Your task to perform on an android device: turn on javascript in the chrome app Image 0: 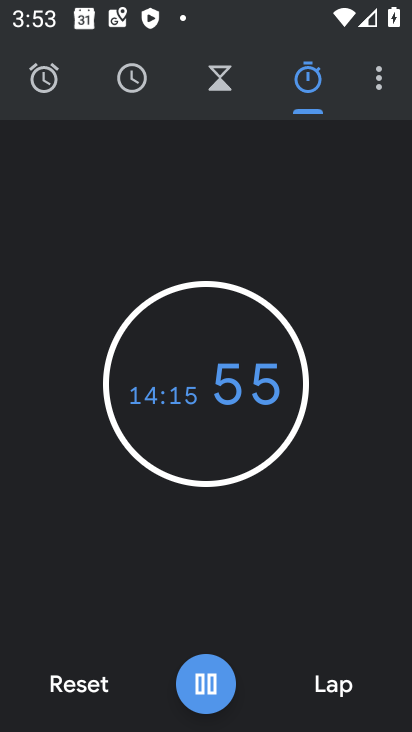
Step 0: press home button
Your task to perform on an android device: turn on javascript in the chrome app Image 1: 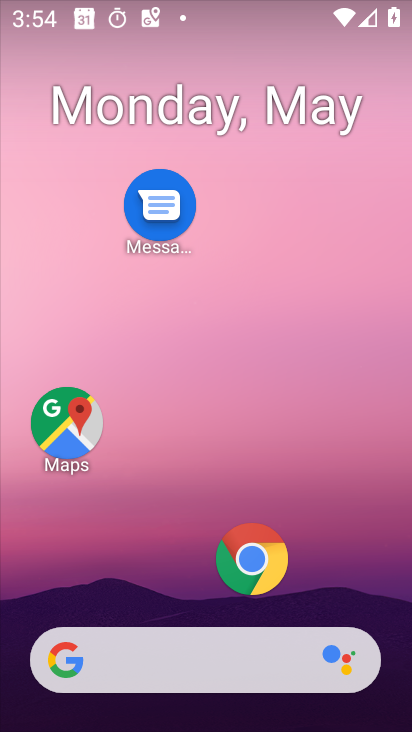
Step 1: drag from (152, 621) to (194, 190)
Your task to perform on an android device: turn on javascript in the chrome app Image 2: 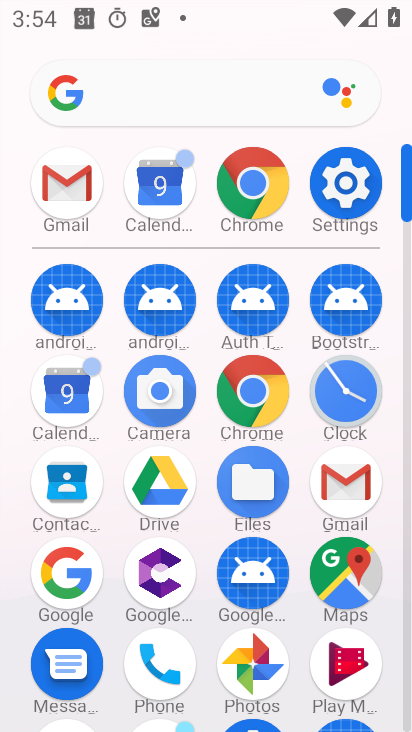
Step 2: drag from (219, 567) to (268, 254)
Your task to perform on an android device: turn on javascript in the chrome app Image 3: 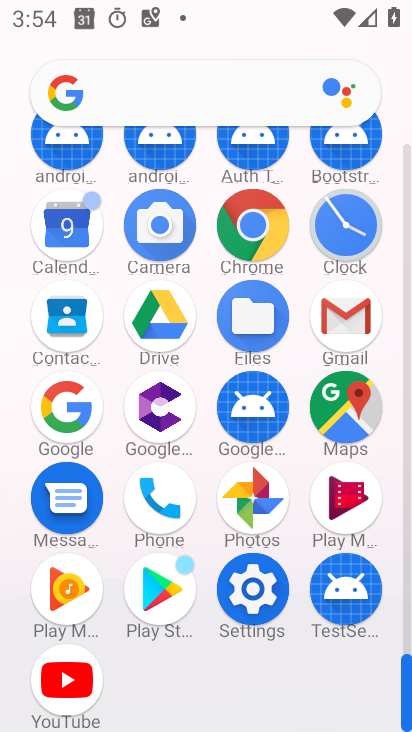
Step 3: click (254, 221)
Your task to perform on an android device: turn on javascript in the chrome app Image 4: 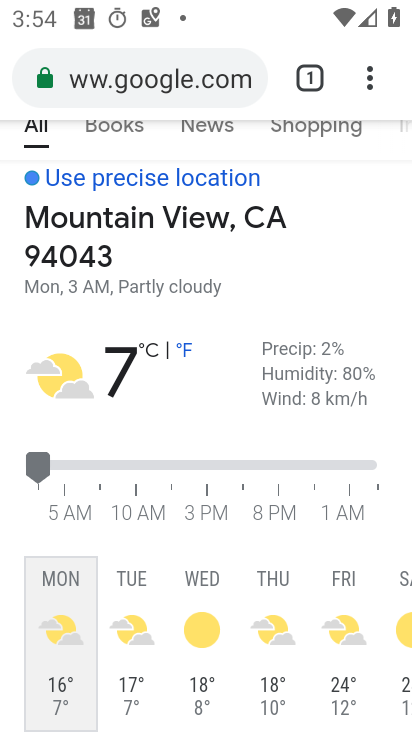
Step 4: click (368, 73)
Your task to perform on an android device: turn on javascript in the chrome app Image 5: 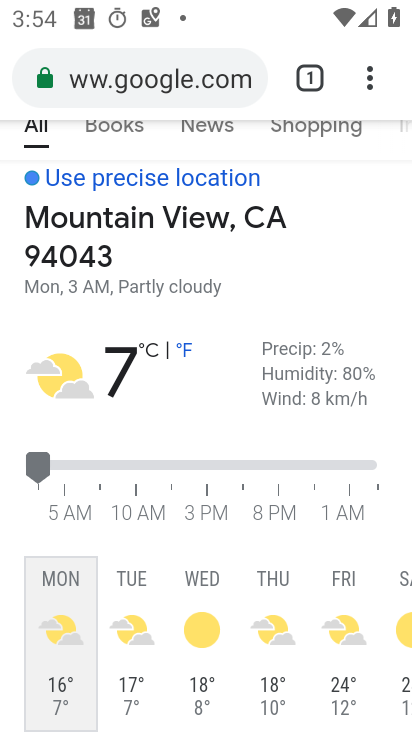
Step 5: click (372, 75)
Your task to perform on an android device: turn on javascript in the chrome app Image 6: 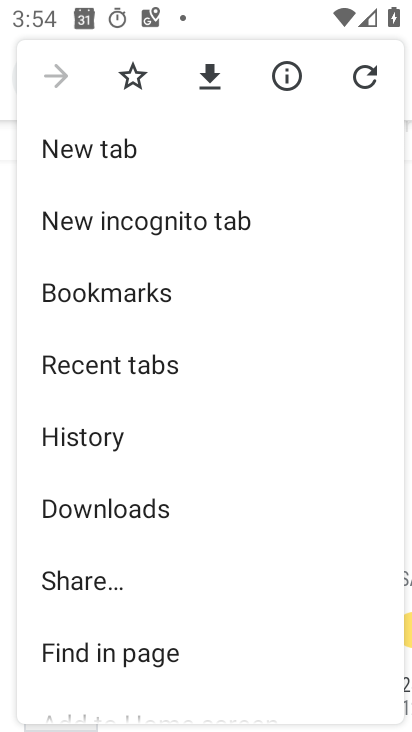
Step 6: drag from (135, 665) to (163, 268)
Your task to perform on an android device: turn on javascript in the chrome app Image 7: 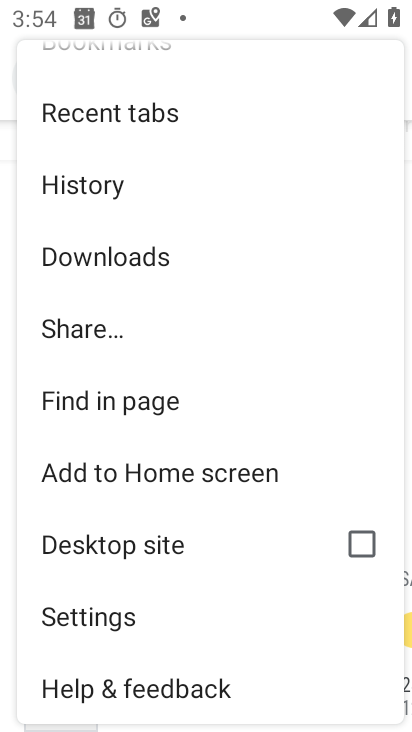
Step 7: drag from (174, 531) to (214, 264)
Your task to perform on an android device: turn on javascript in the chrome app Image 8: 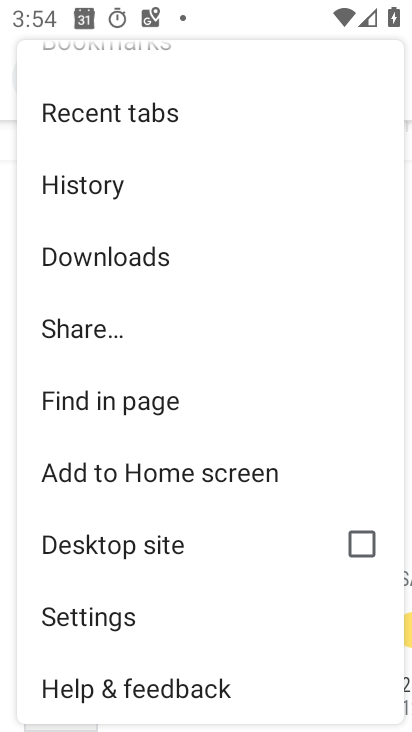
Step 8: click (113, 619)
Your task to perform on an android device: turn on javascript in the chrome app Image 9: 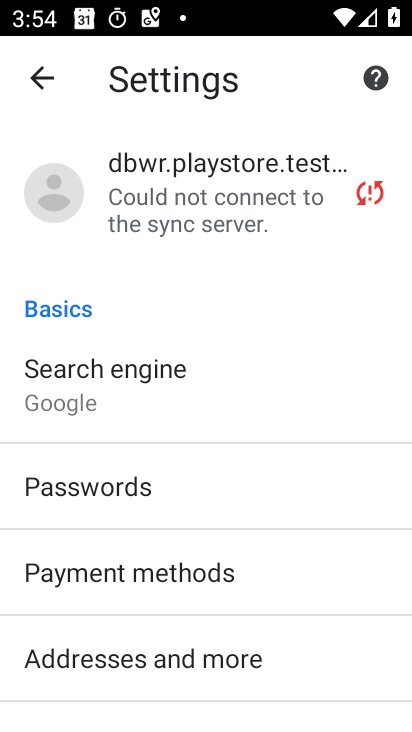
Step 9: drag from (149, 629) to (180, 183)
Your task to perform on an android device: turn on javascript in the chrome app Image 10: 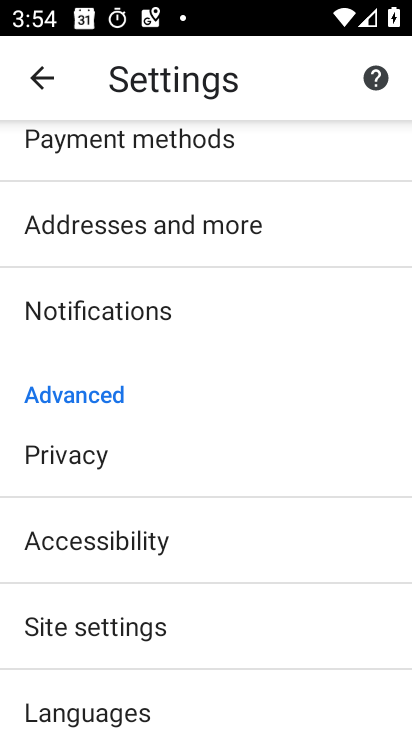
Step 10: drag from (103, 607) to (121, 397)
Your task to perform on an android device: turn on javascript in the chrome app Image 11: 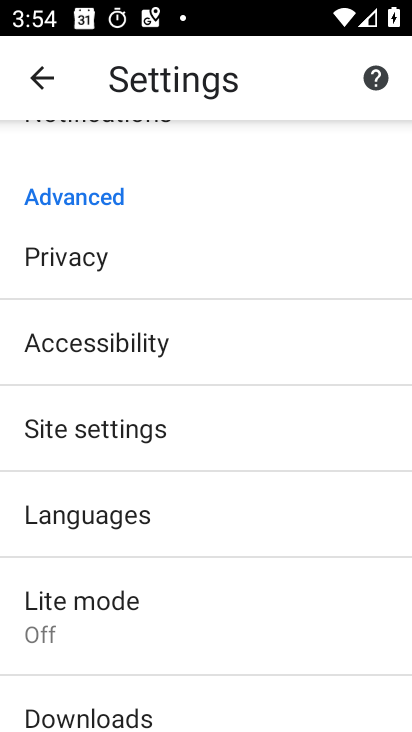
Step 11: click (78, 431)
Your task to perform on an android device: turn on javascript in the chrome app Image 12: 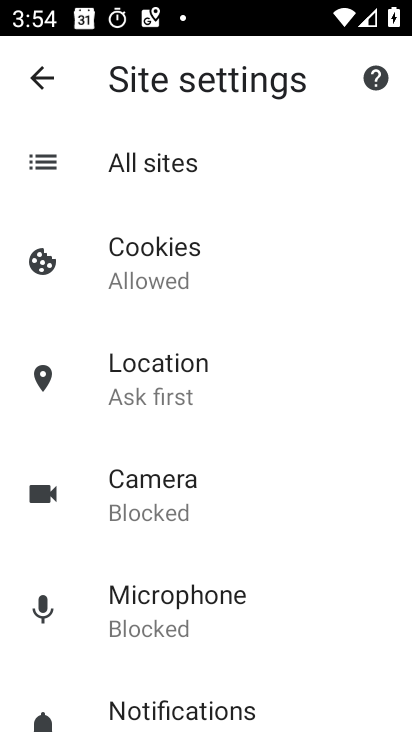
Step 12: drag from (230, 642) to (243, 248)
Your task to perform on an android device: turn on javascript in the chrome app Image 13: 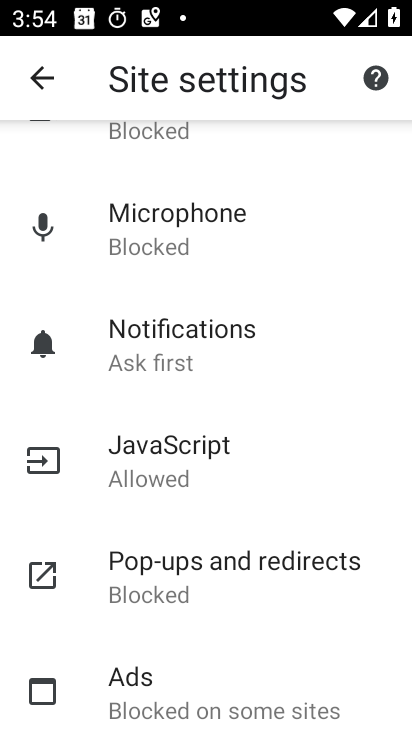
Step 13: click (171, 467)
Your task to perform on an android device: turn on javascript in the chrome app Image 14: 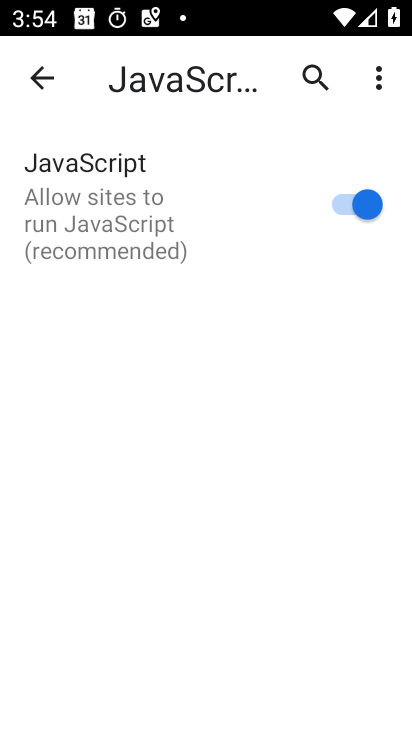
Step 14: task complete